Your task to perform on an android device: Go to location settings Image 0: 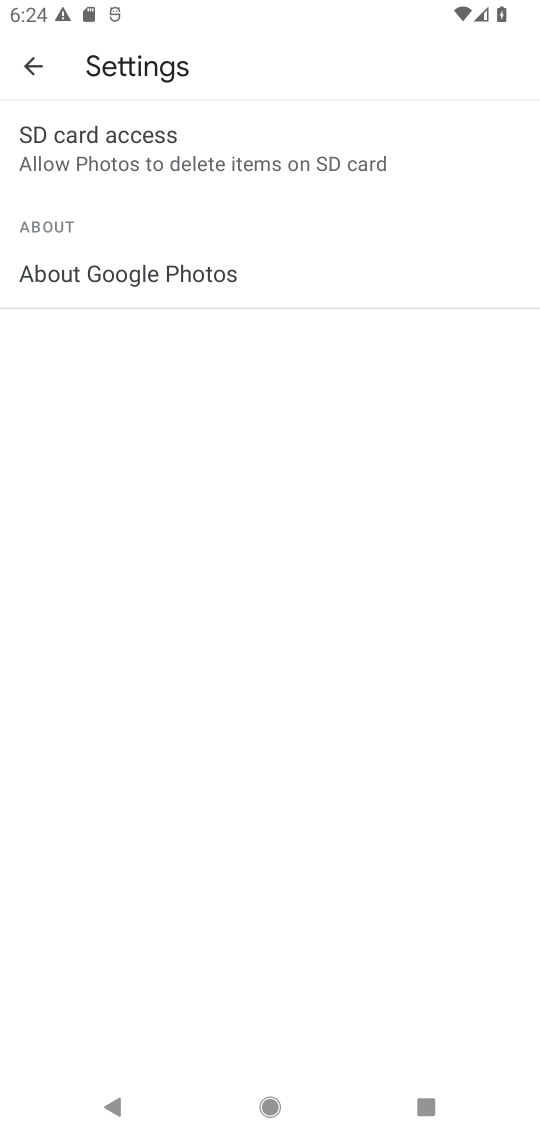
Step 0: press home button
Your task to perform on an android device: Go to location settings Image 1: 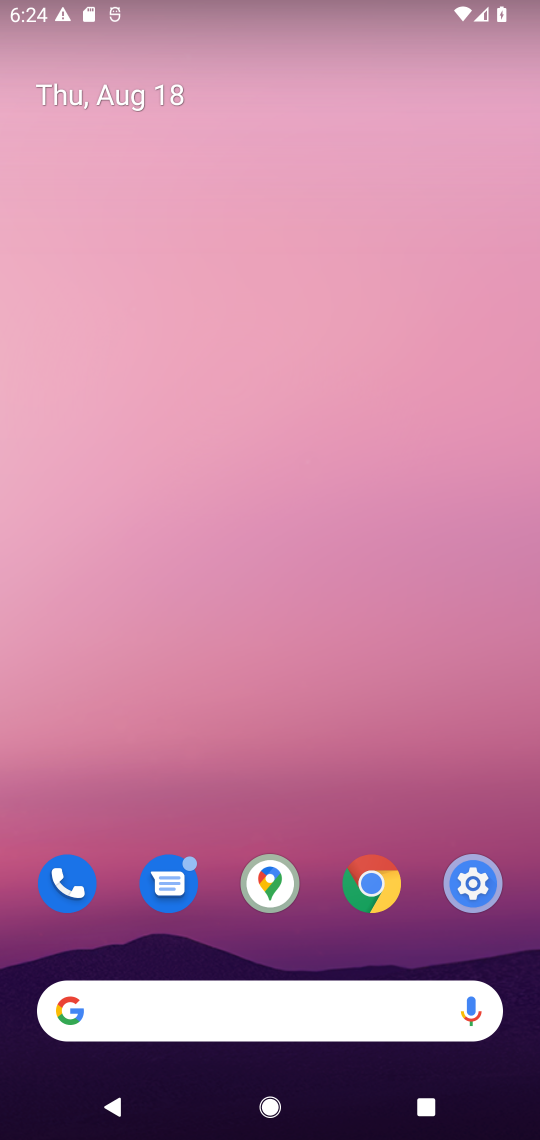
Step 1: click (487, 895)
Your task to perform on an android device: Go to location settings Image 2: 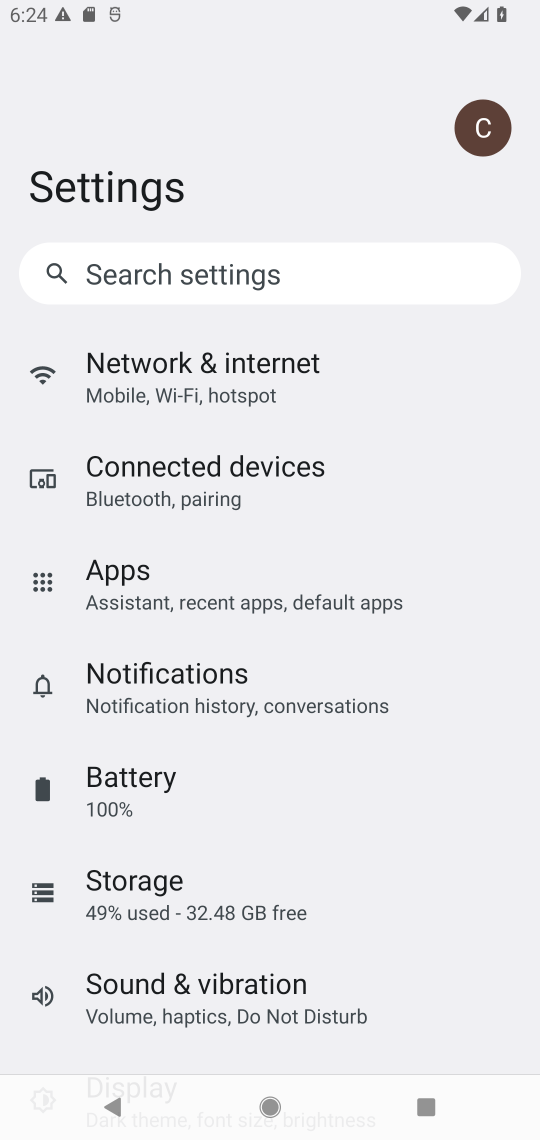
Step 2: drag from (439, 1066) to (410, 530)
Your task to perform on an android device: Go to location settings Image 3: 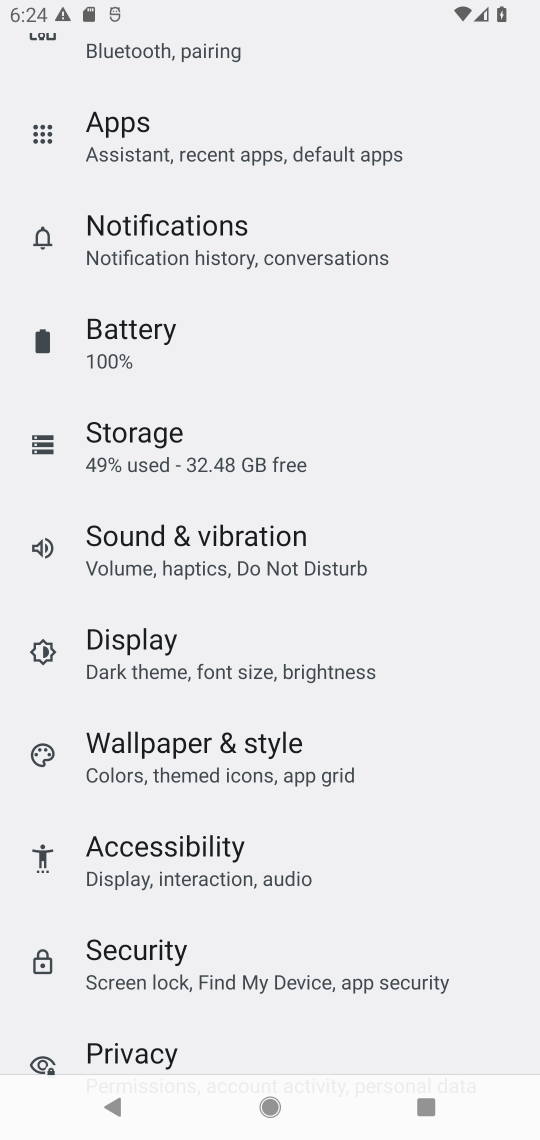
Step 3: drag from (498, 1015) to (404, 441)
Your task to perform on an android device: Go to location settings Image 4: 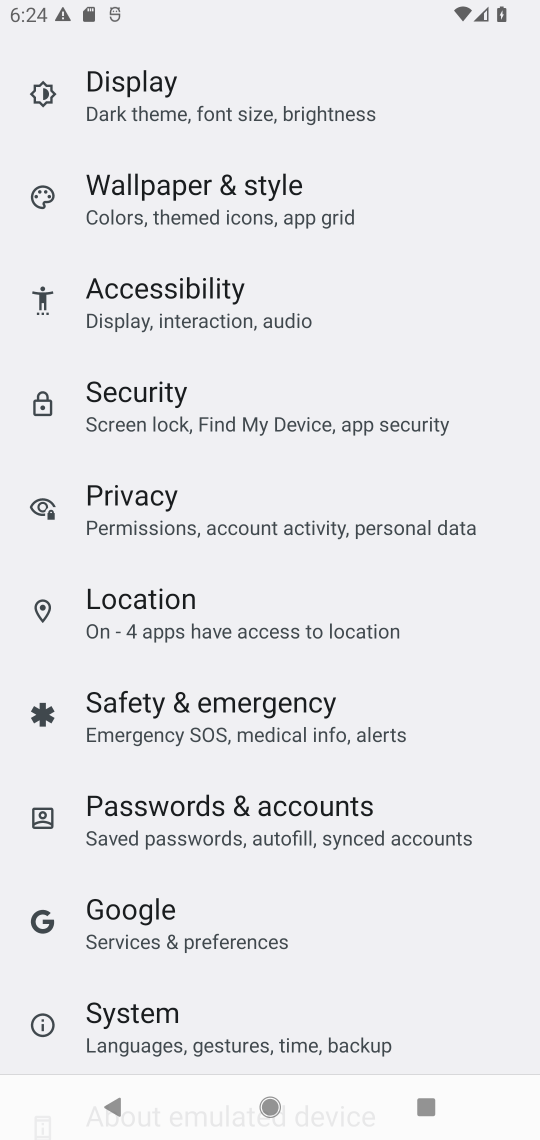
Step 4: click (238, 599)
Your task to perform on an android device: Go to location settings Image 5: 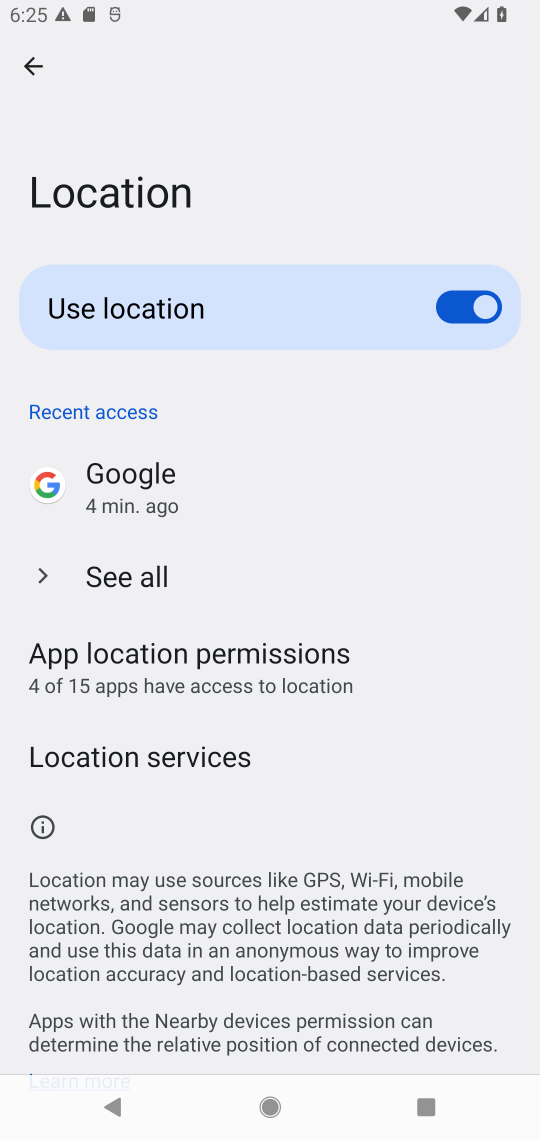
Step 5: task complete